Your task to perform on an android device: visit the assistant section in the google photos Image 0: 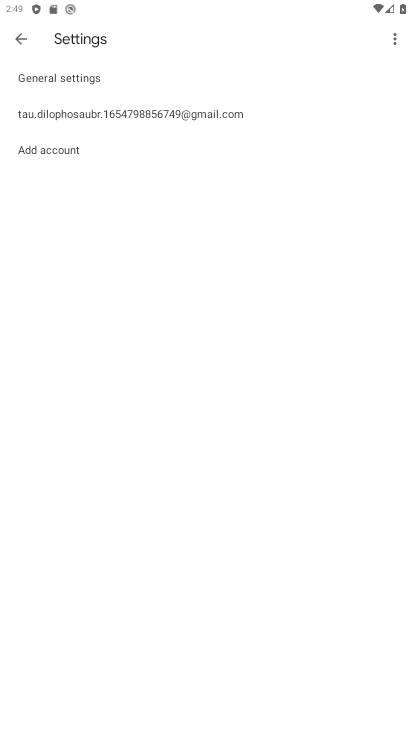
Step 0: drag from (194, 569) to (223, 221)
Your task to perform on an android device: visit the assistant section in the google photos Image 1: 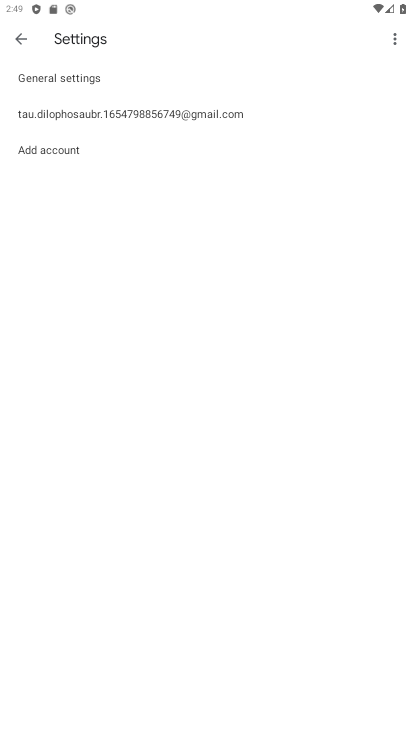
Step 1: press home button
Your task to perform on an android device: visit the assistant section in the google photos Image 2: 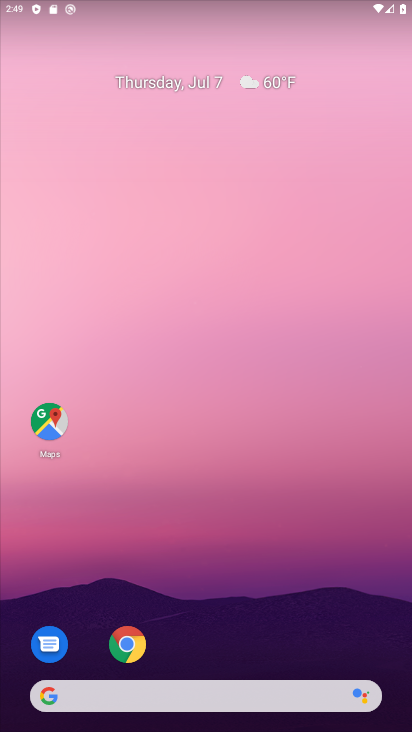
Step 2: drag from (168, 539) to (177, 151)
Your task to perform on an android device: visit the assistant section in the google photos Image 3: 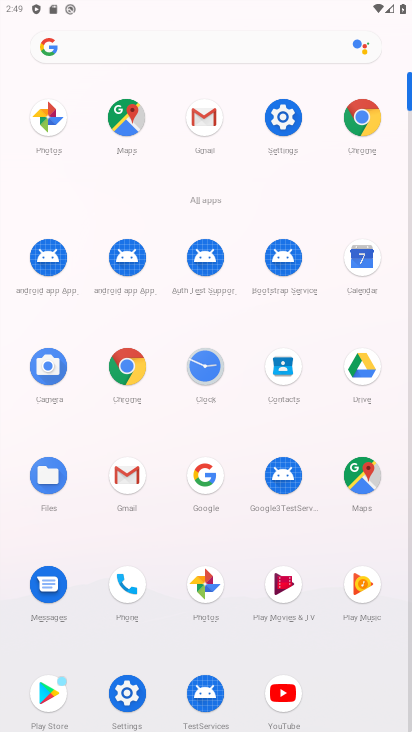
Step 3: click (207, 131)
Your task to perform on an android device: visit the assistant section in the google photos Image 4: 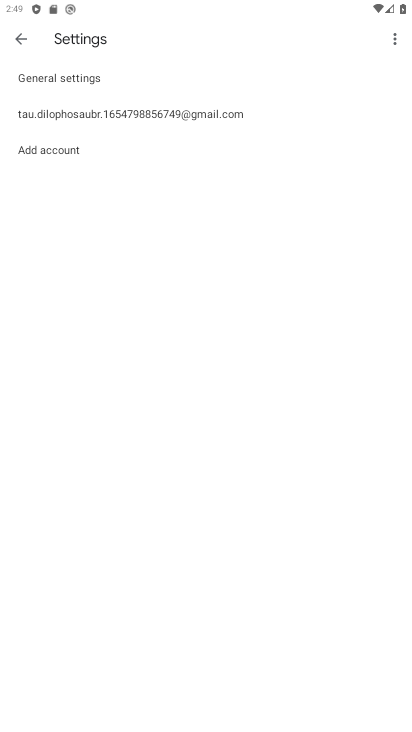
Step 4: click (20, 32)
Your task to perform on an android device: visit the assistant section in the google photos Image 5: 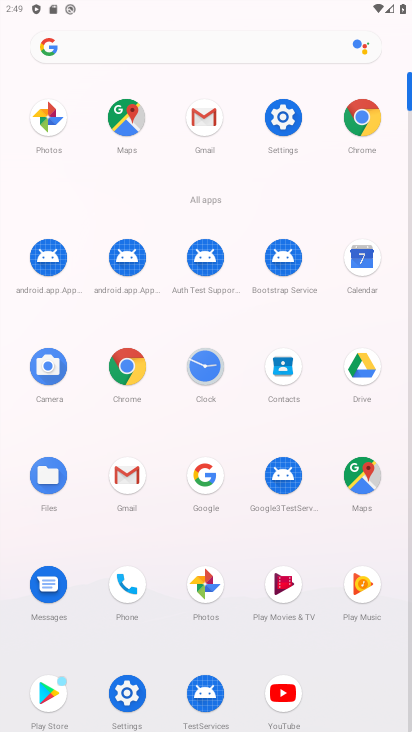
Step 5: click (20, 32)
Your task to perform on an android device: visit the assistant section in the google photos Image 6: 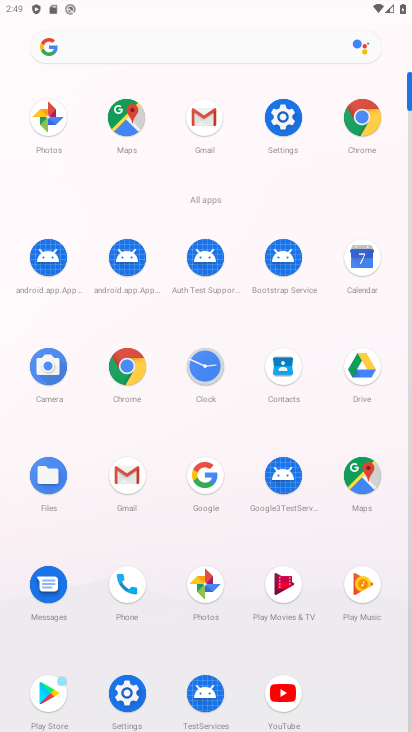
Step 6: click (215, 582)
Your task to perform on an android device: visit the assistant section in the google photos Image 7: 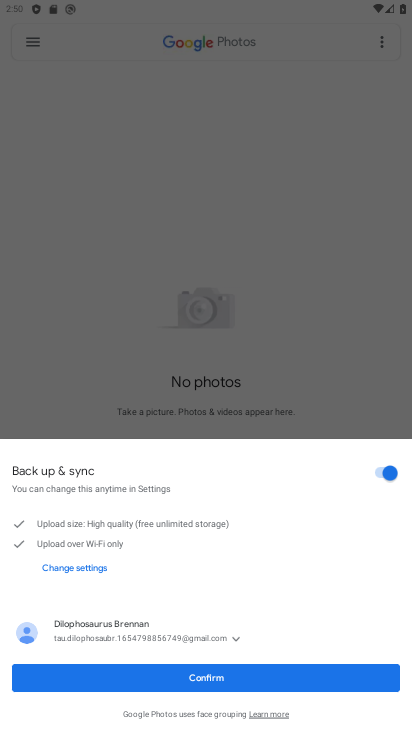
Step 7: click (228, 671)
Your task to perform on an android device: visit the assistant section in the google photos Image 8: 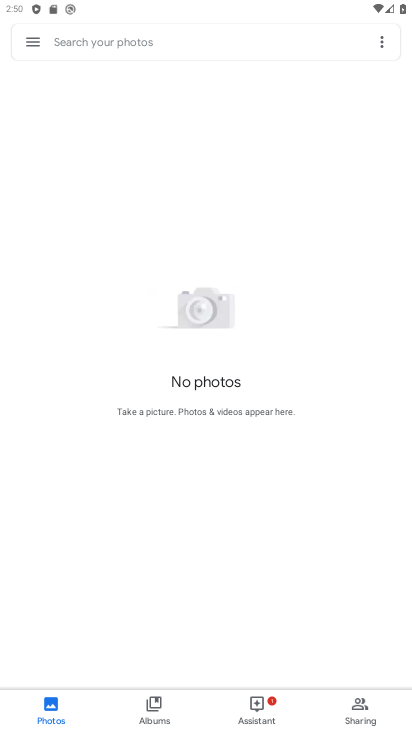
Step 8: click (251, 714)
Your task to perform on an android device: visit the assistant section in the google photos Image 9: 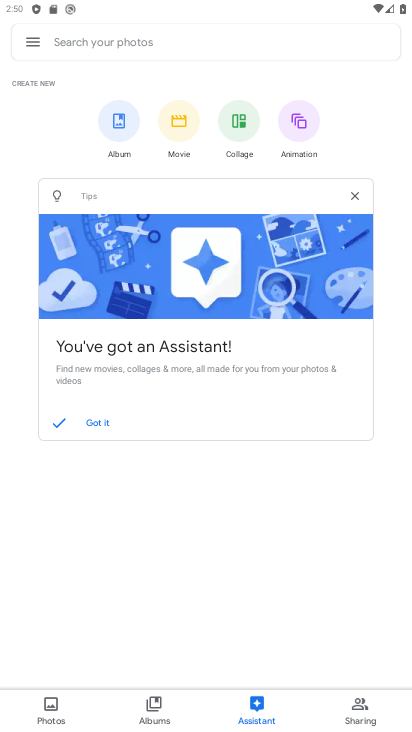
Step 9: task complete